Your task to perform on an android device: Open accessibility settings Image 0: 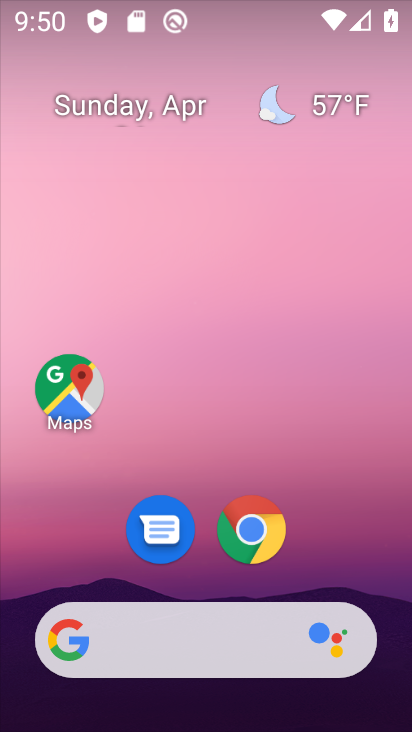
Step 0: drag from (330, 553) to (269, 13)
Your task to perform on an android device: Open accessibility settings Image 1: 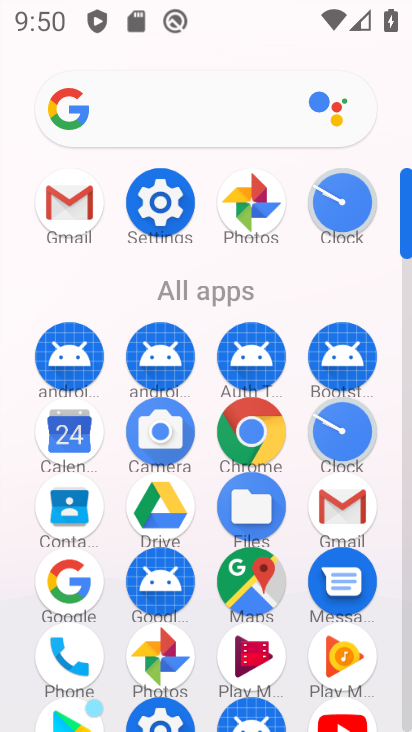
Step 1: click (164, 219)
Your task to perform on an android device: Open accessibility settings Image 2: 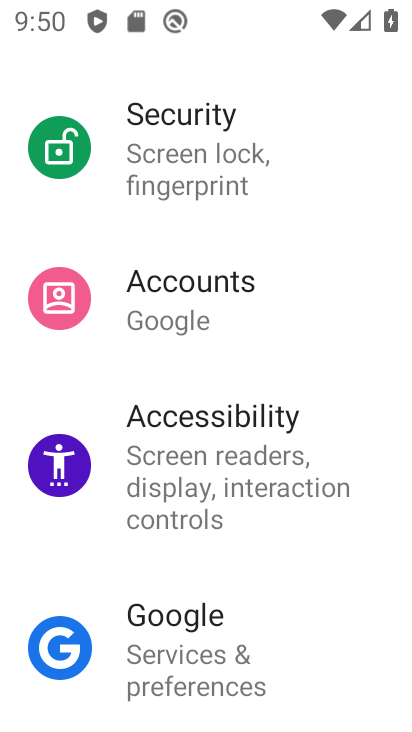
Step 2: click (218, 465)
Your task to perform on an android device: Open accessibility settings Image 3: 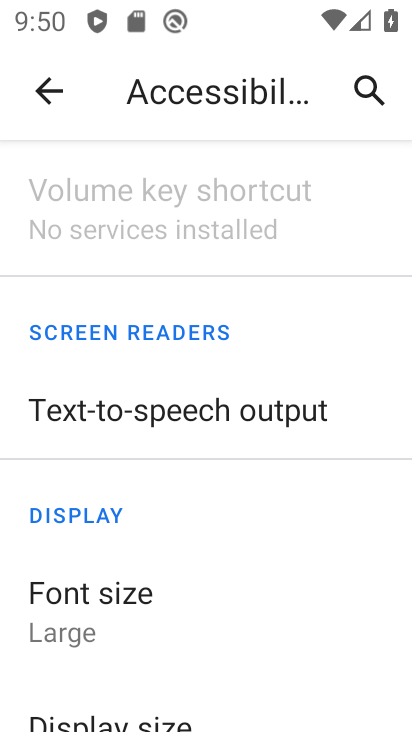
Step 3: task complete